Your task to perform on an android device: uninstall "Viber Messenger" Image 0: 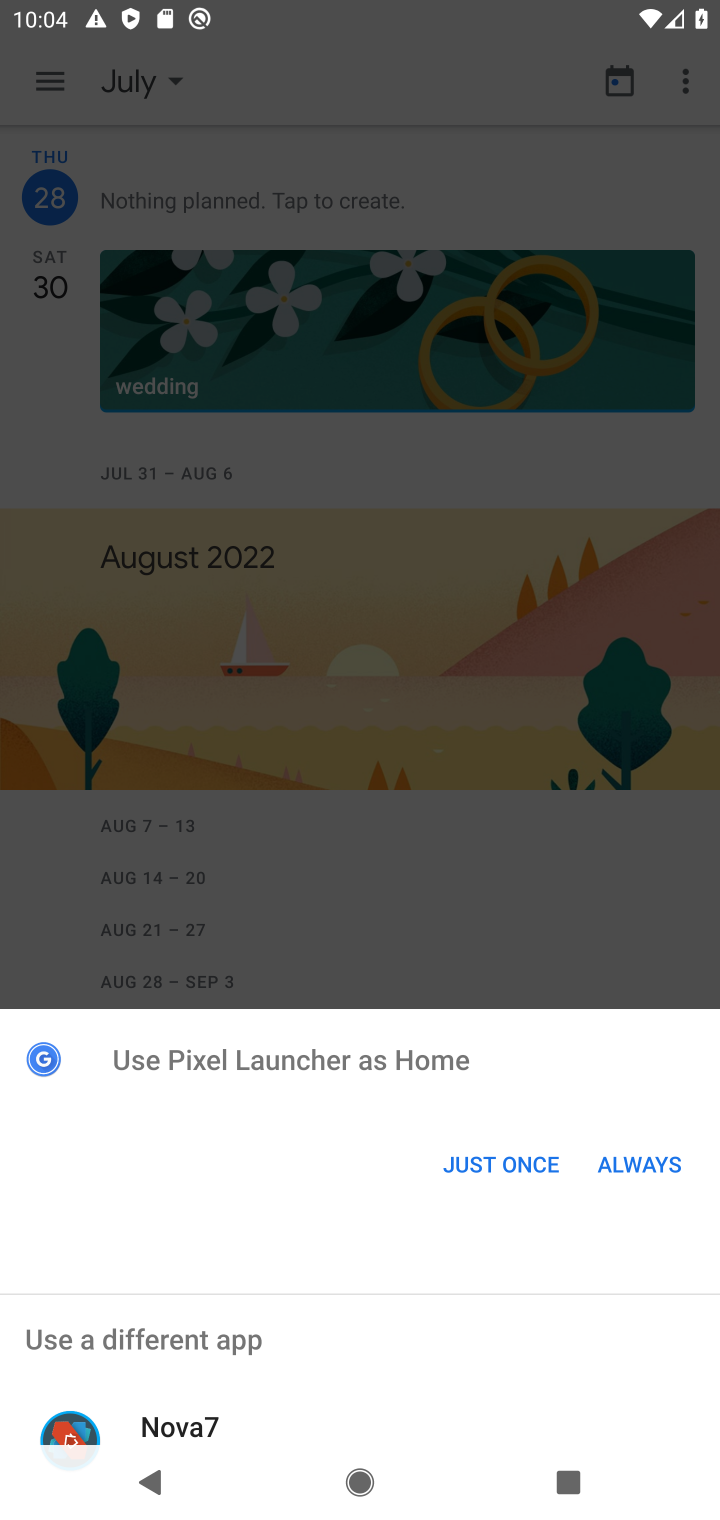
Step 0: click (491, 1140)
Your task to perform on an android device: uninstall "Viber Messenger" Image 1: 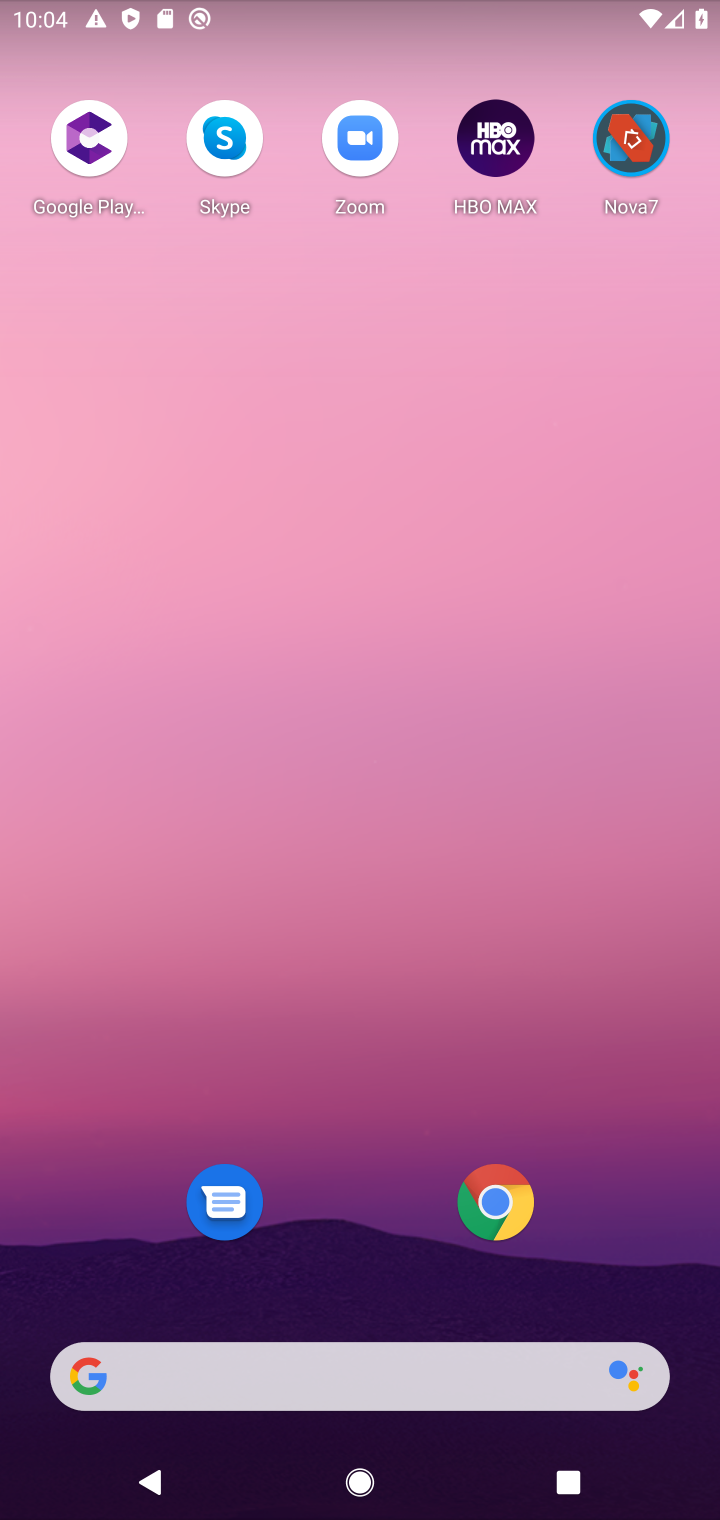
Step 1: click (240, 1390)
Your task to perform on an android device: uninstall "Viber Messenger" Image 2: 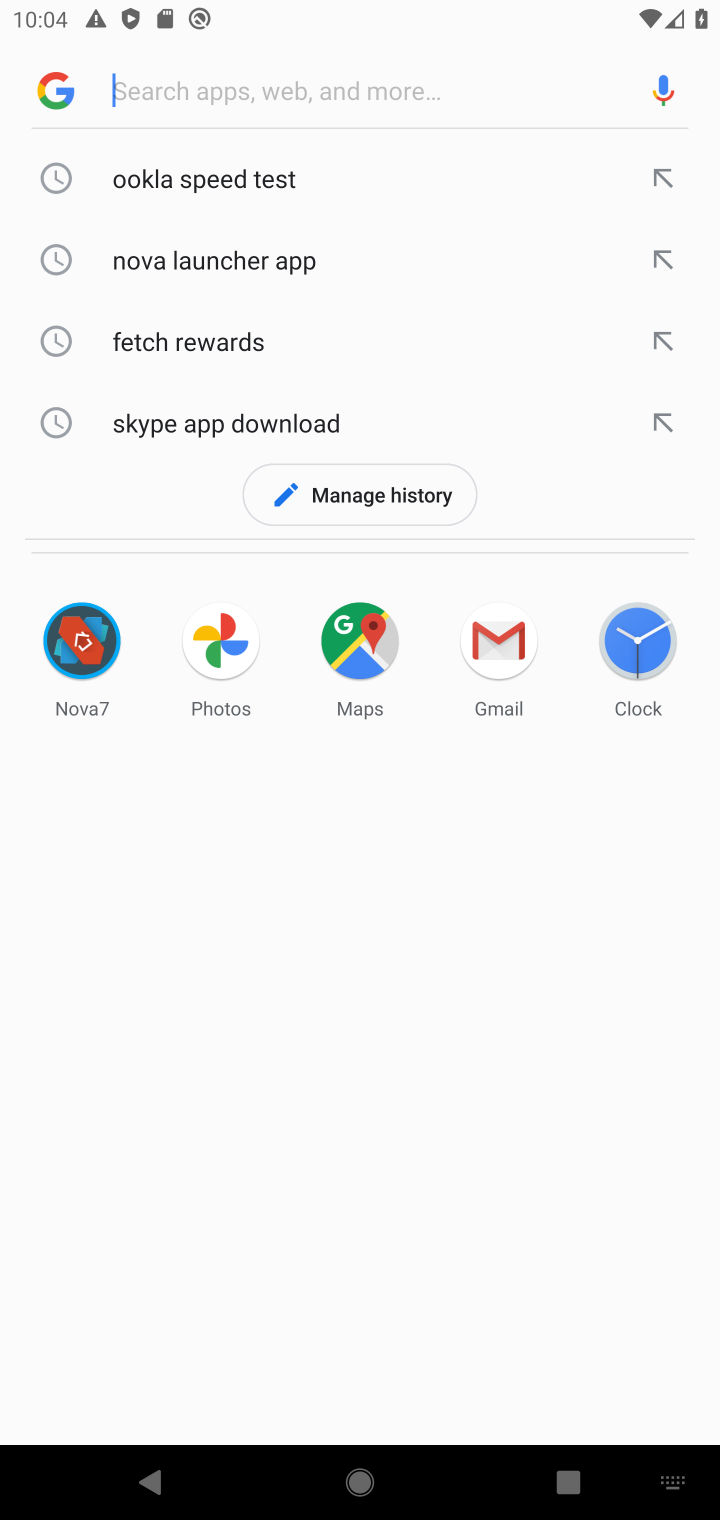
Step 2: type "vider"
Your task to perform on an android device: uninstall "Viber Messenger" Image 3: 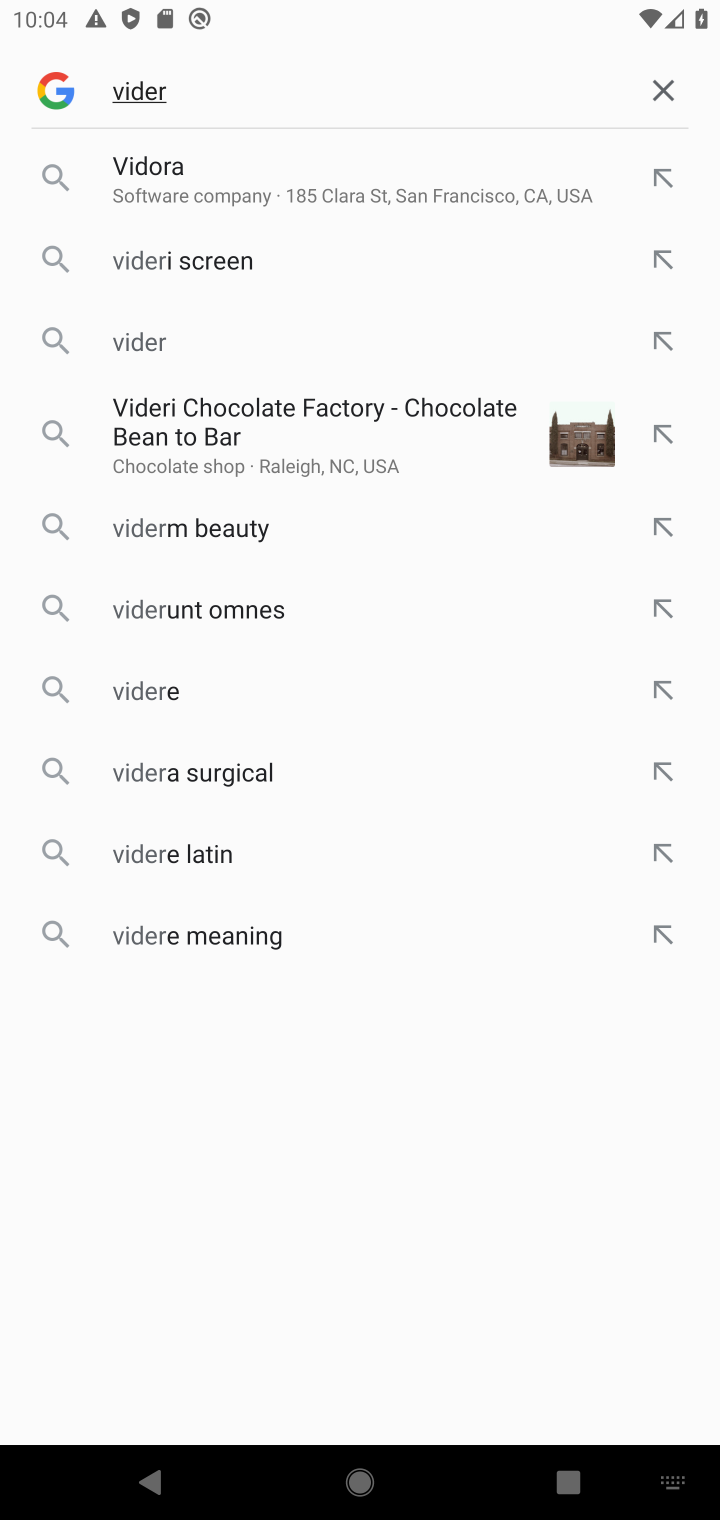
Step 3: click (351, 342)
Your task to perform on an android device: uninstall "Viber Messenger" Image 4: 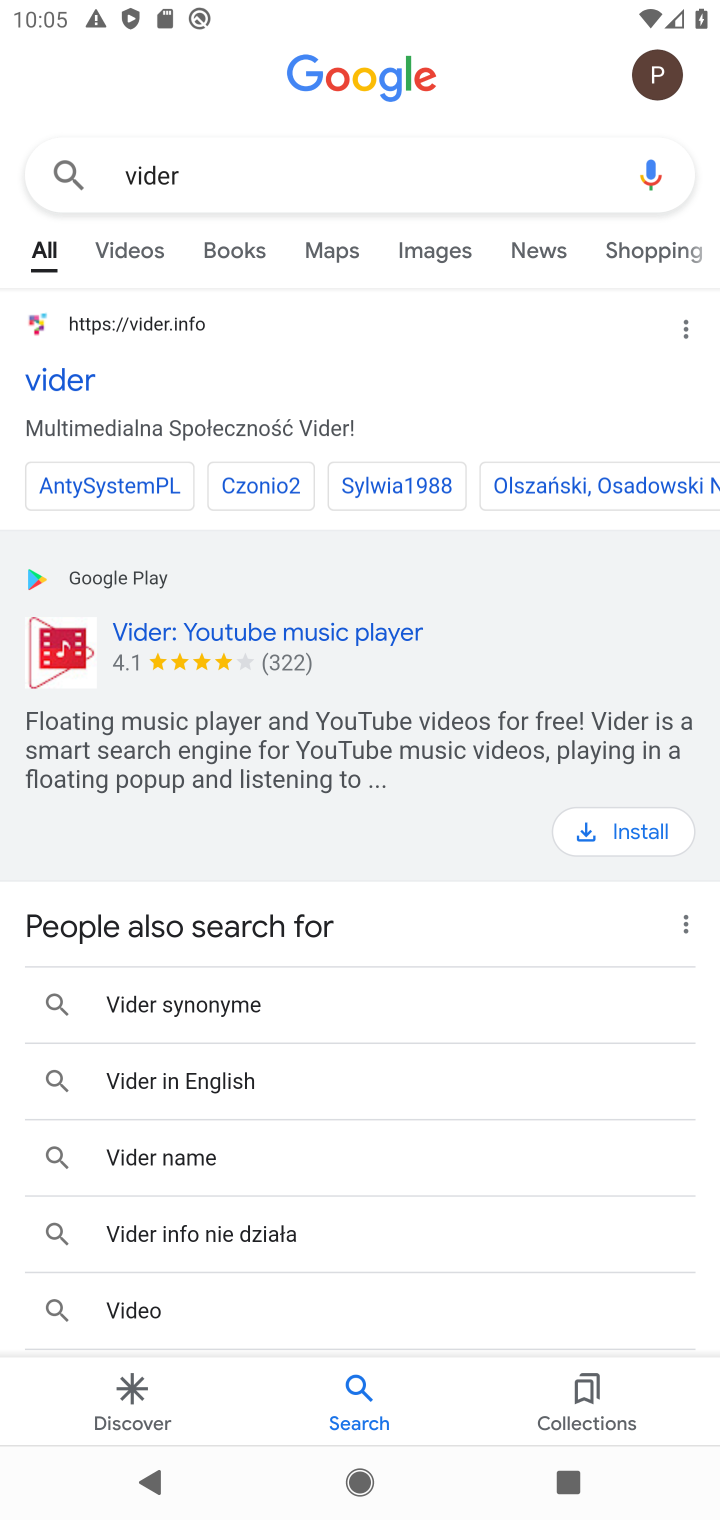
Step 4: click (600, 818)
Your task to perform on an android device: uninstall "Viber Messenger" Image 5: 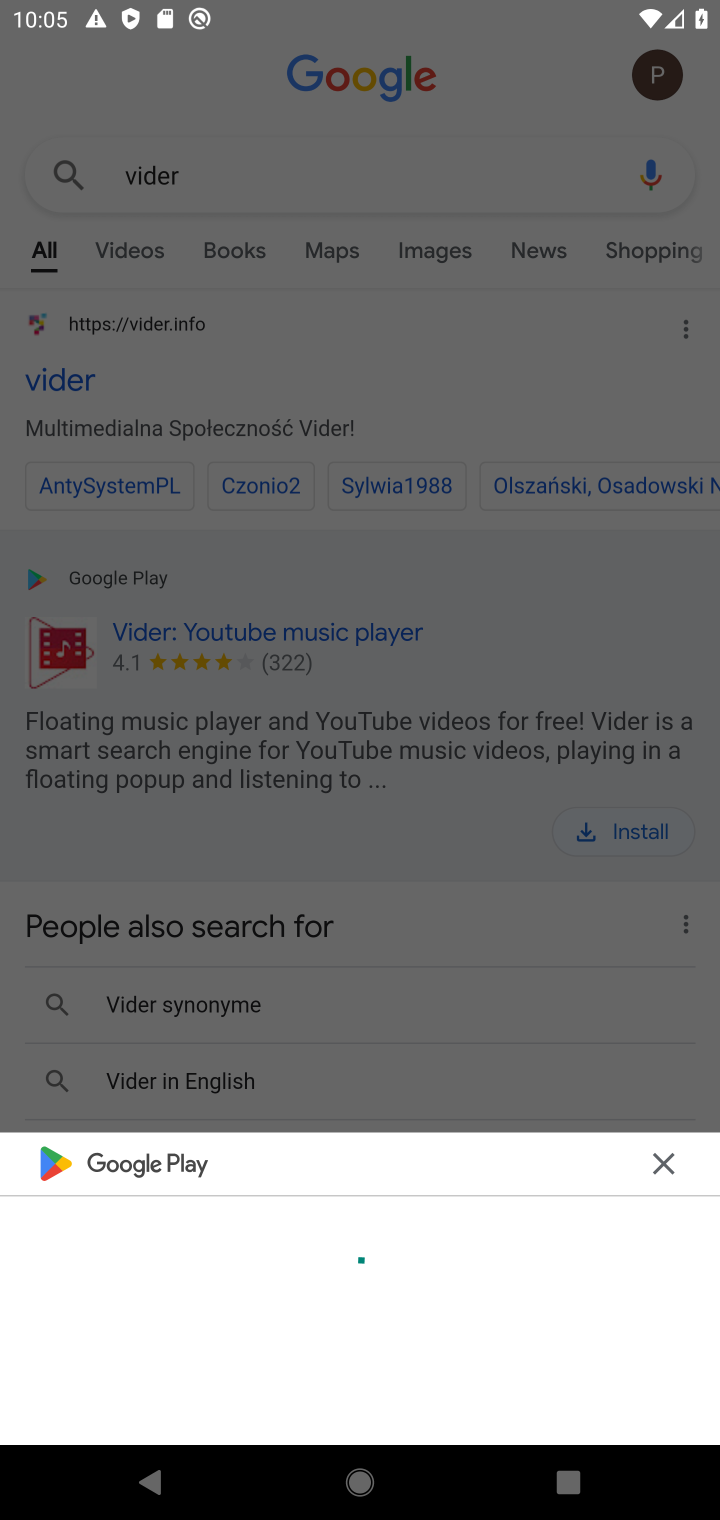
Step 5: task complete